Your task to perform on an android device: star an email in the gmail app Image 0: 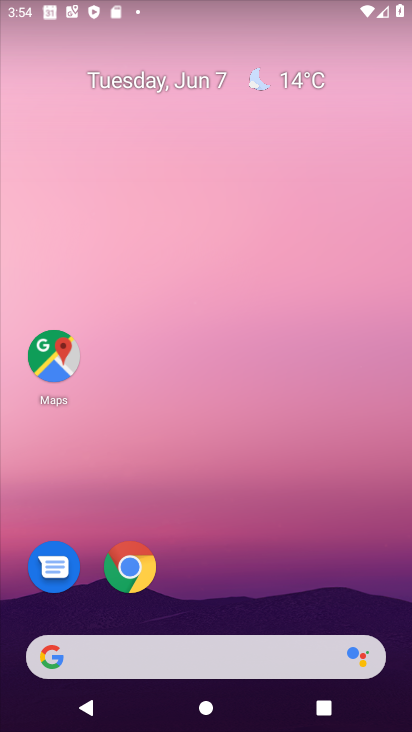
Step 0: drag from (223, 587) to (223, 167)
Your task to perform on an android device: star an email in the gmail app Image 1: 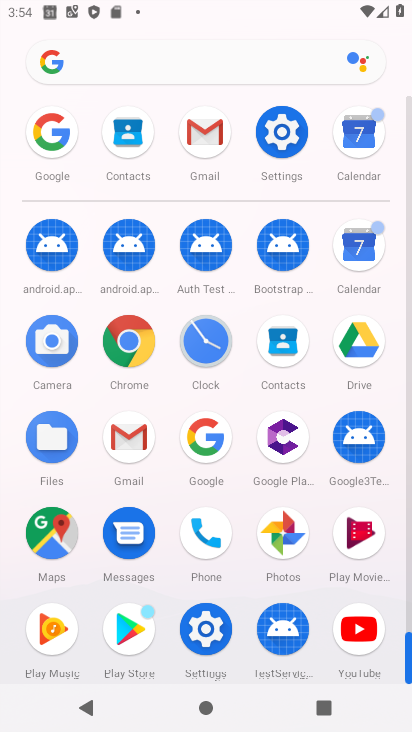
Step 1: click (135, 422)
Your task to perform on an android device: star an email in the gmail app Image 2: 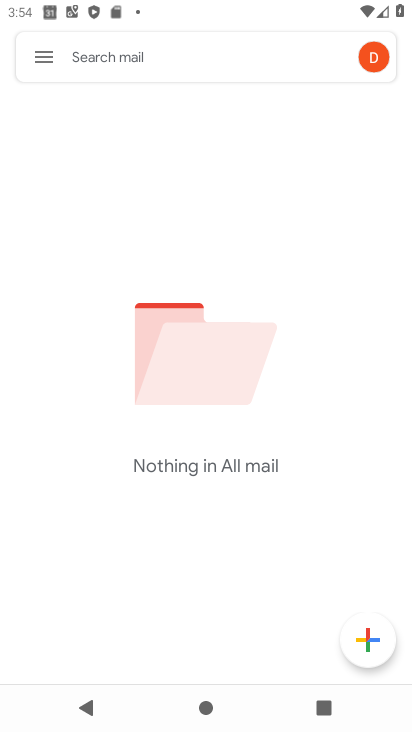
Step 2: click (37, 58)
Your task to perform on an android device: star an email in the gmail app Image 3: 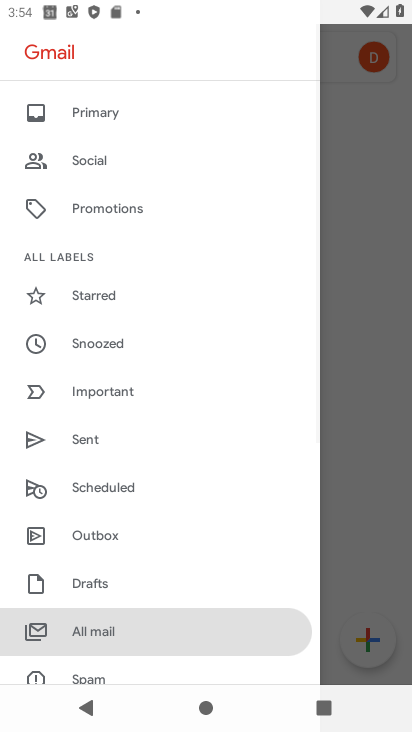
Step 3: click (100, 646)
Your task to perform on an android device: star an email in the gmail app Image 4: 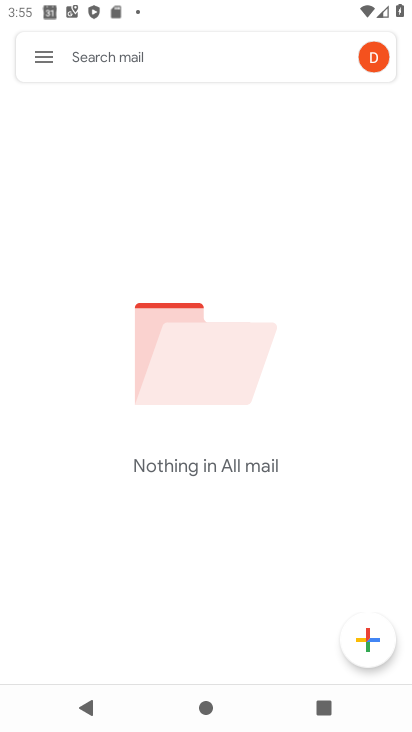
Step 4: task complete